Your task to perform on an android device: Go to Amazon Image 0: 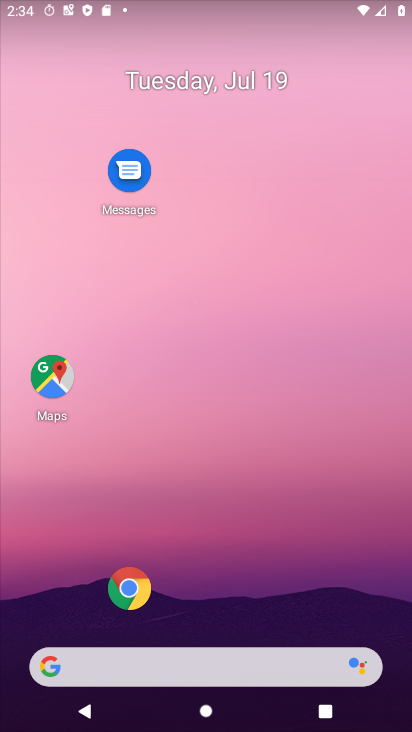
Step 0: click (150, 657)
Your task to perform on an android device: Go to Amazon Image 1: 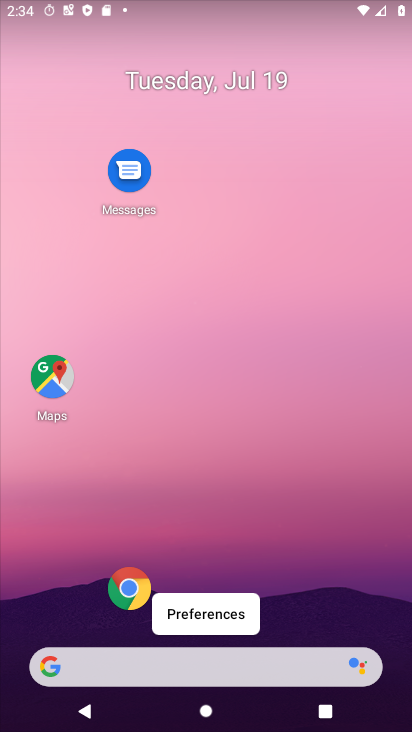
Step 1: click (126, 663)
Your task to perform on an android device: Go to Amazon Image 2: 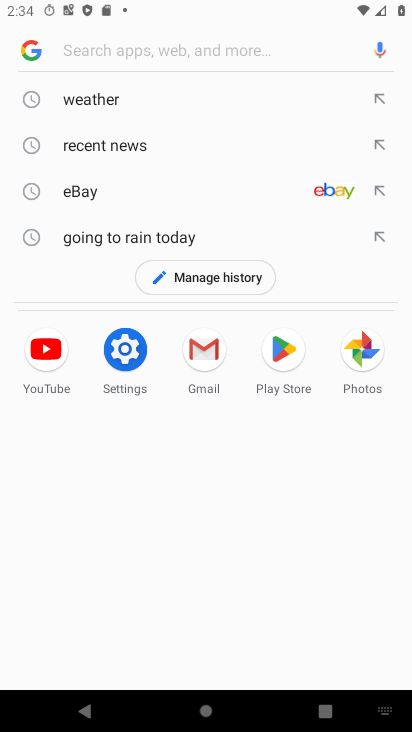
Step 2: type "Amazon"
Your task to perform on an android device: Go to Amazon Image 3: 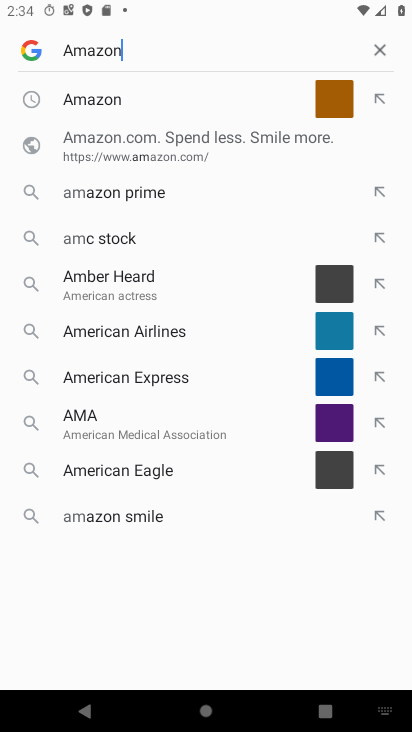
Step 3: type ""
Your task to perform on an android device: Go to Amazon Image 4: 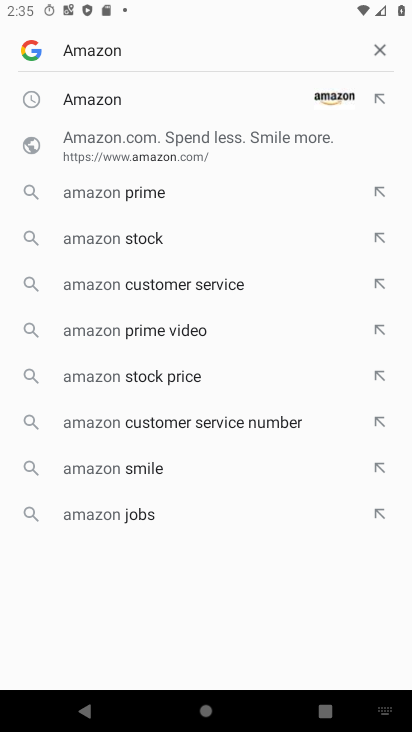
Step 4: click (95, 104)
Your task to perform on an android device: Go to Amazon Image 5: 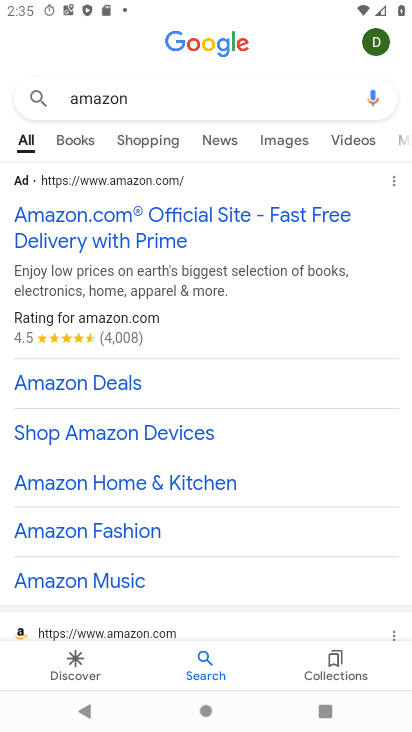
Step 5: task complete